Your task to perform on an android device: Open settings Image 0: 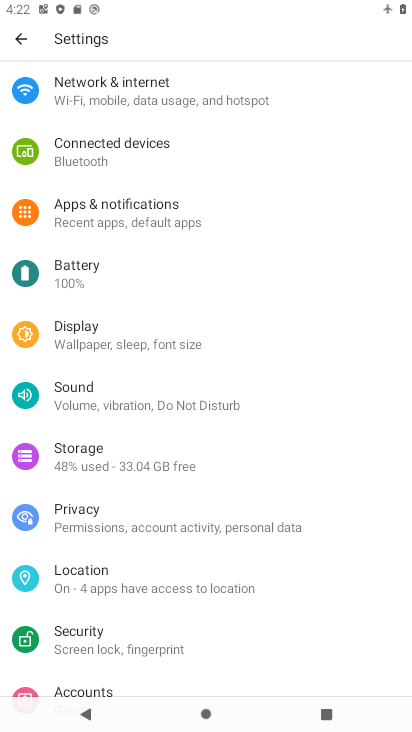
Step 0: task complete